Your task to perform on an android device: turn on the 24-hour format for clock Image 0: 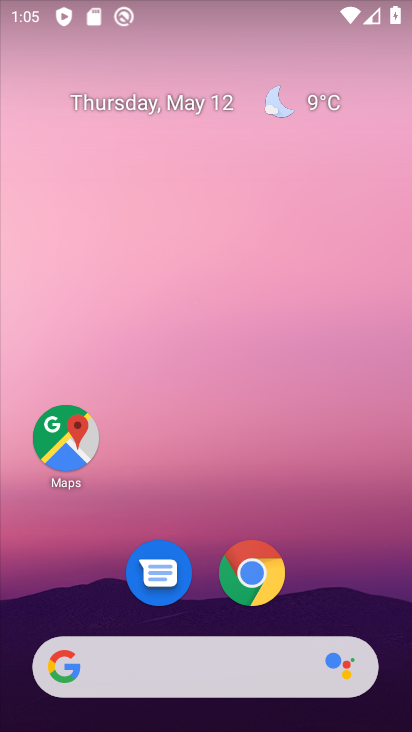
Step 0: drag from (301, 620) to (349, 21)
Your task to perform on an android device: turn on the 24-hour format for clock Image 1: 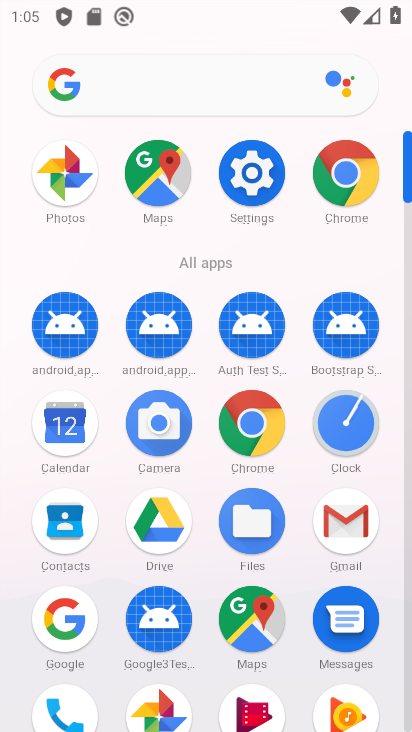
Step 1: click (347, 412)
Your task to perform on an android device: turn on the 24-hour format for clock Image 2: 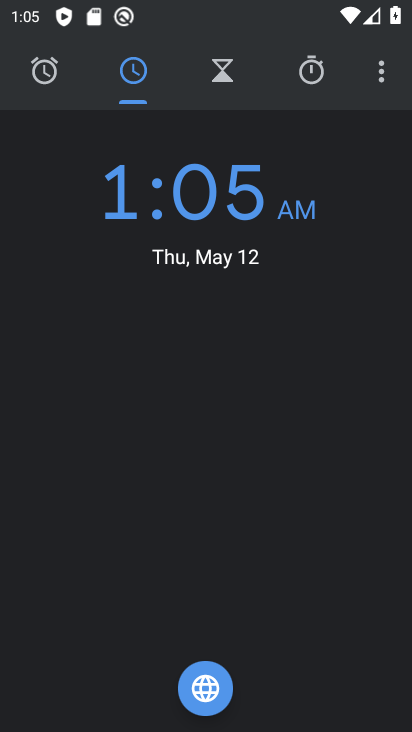
Step 2: click (383, 63)
Your task to perform on an android device: turn on the 24-hour format for clock Image 3: 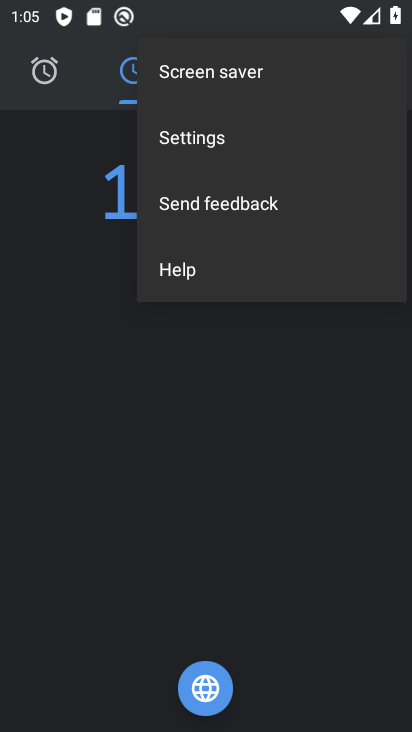
Step 3: click (264, 145)
Your task to perform on an android device: turn on the 24-hour format for clock Image 4: 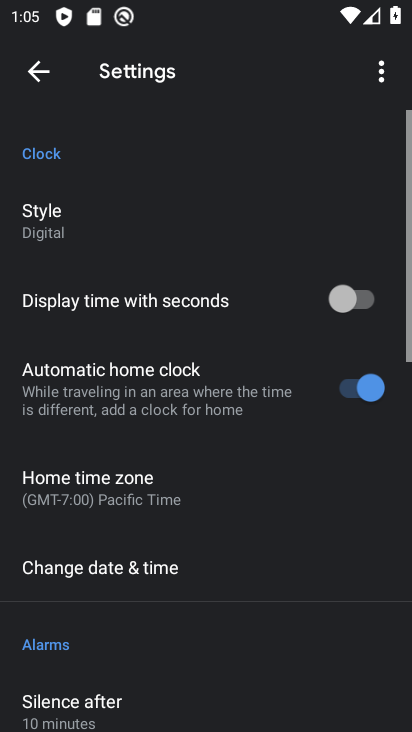
Step 4: drag from (238, 585) to (267, 330)
Your task to perform on an android device: turn on the 24-hour format for clock Image 5: 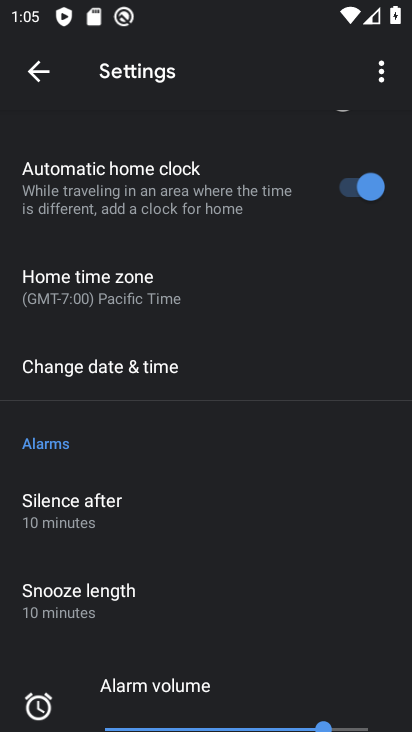
Step 5: click (132, 346)
Your task to perform on an android device: turn on the 24-hour format for clock Image 6: 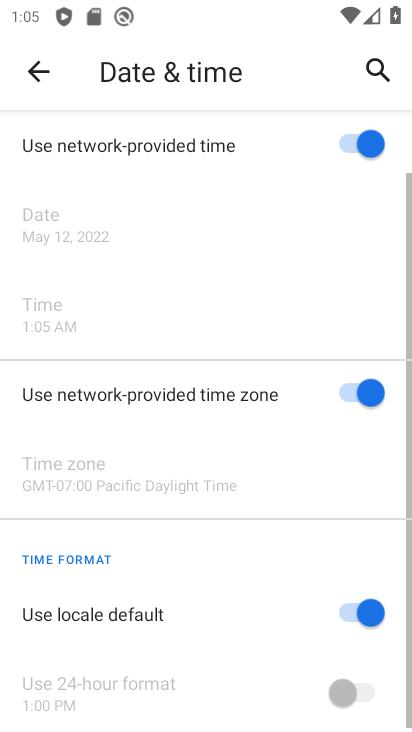
Step 6: drag from (111, 550) to (222, 184)
Your task to perform on an android device: turn on the 24-hour format for clock Image 7: 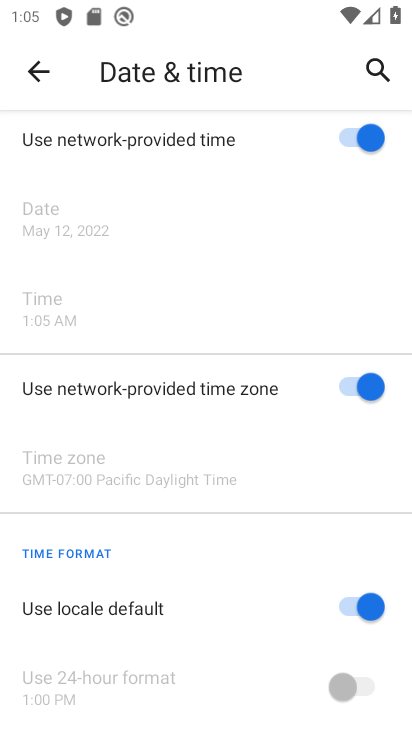
Step 7: click (359, 607)
Your task to perform on an android device: turn on the 24-hour format for clock Image 8: 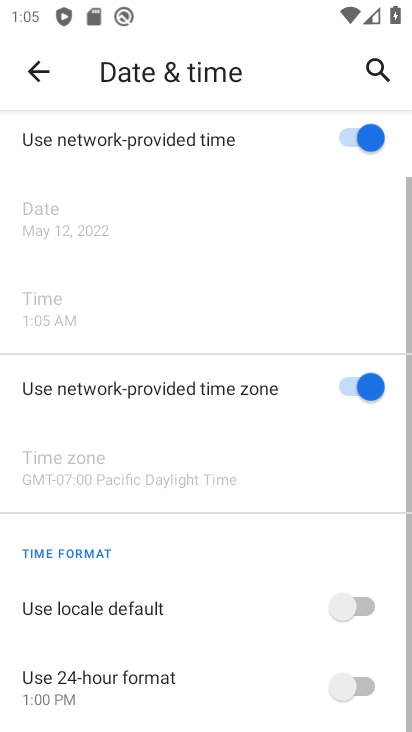
Step 8: click (364, 686)
Your task to perform on an android device: turn on the 24-hour format for clock Image 9: 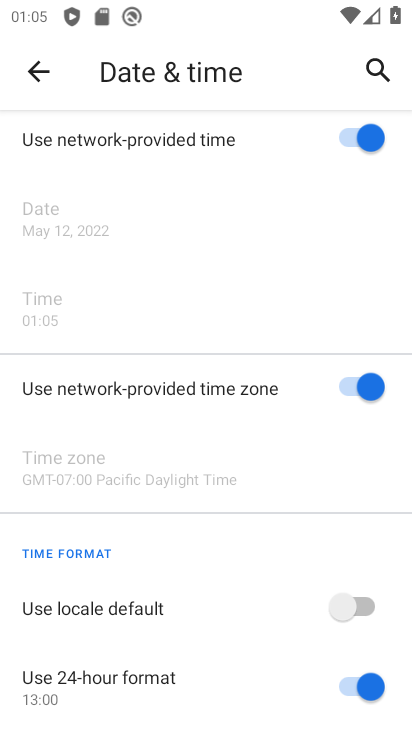
Step 9: task complete